Your task to perform on an android device: turn off notifications in google photos Image 0: 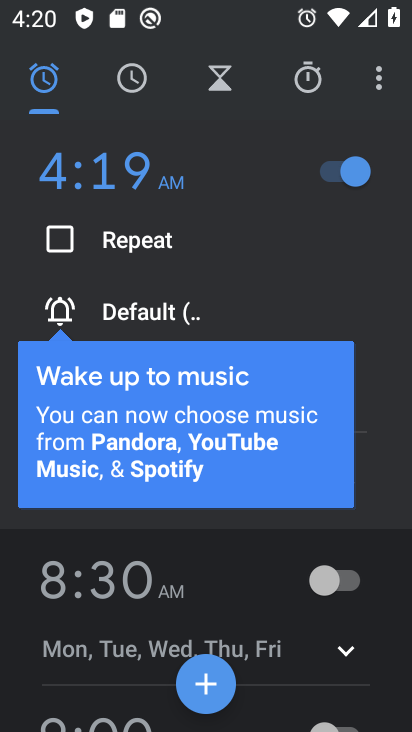
Step 0: press home button
Your task to perform on an android device: turn off notifications in google photos Image 1: 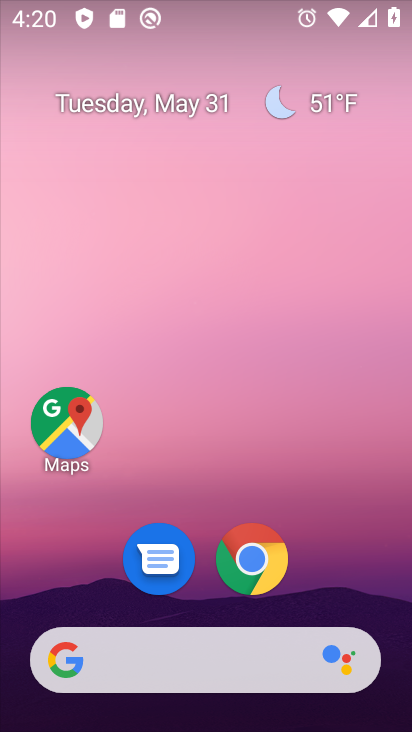
Step 1: drag from (332, 580) to (189, 0)
Your task to perform on an android device: turn off notifications in google photos Image 2: 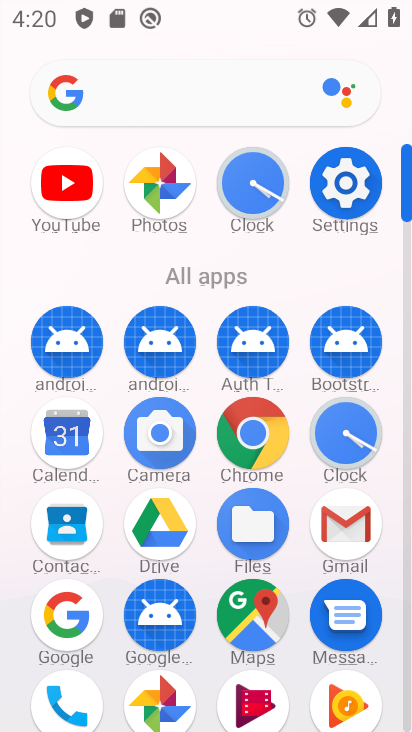
Step 2: click (148, 705)
Your task to perform on an android device: turn off notifications in google photos Image 3: 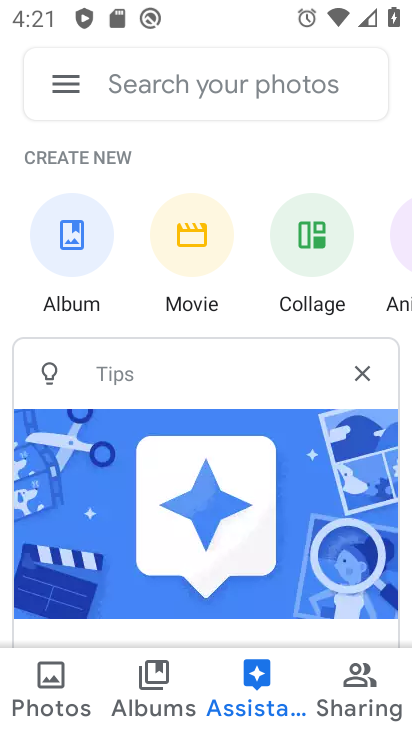
Step 3: click (63, 80)
Your task to perform on an android device: turn off notifications in google photos Image 4: 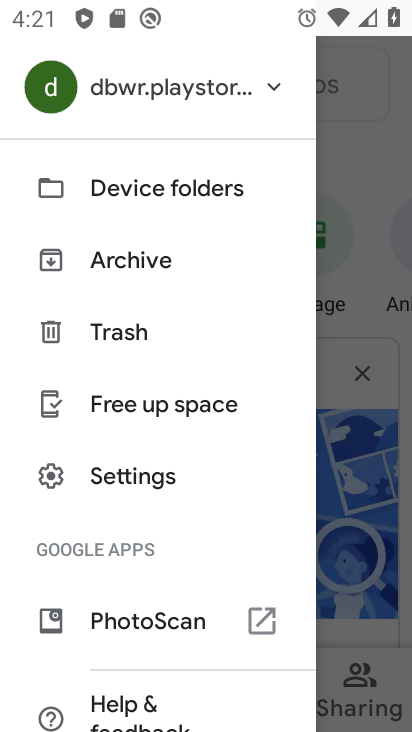
Step 4: click (122, 480)
Your task to perform on an android device: turn off notifications in google photos Image 5: 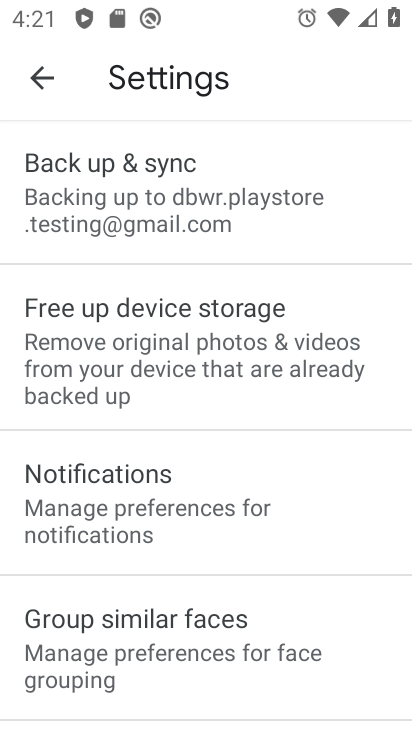
Step 5: click (108, 532)
Your task to perform on an android device: turn off notifications in google photos Image 6: 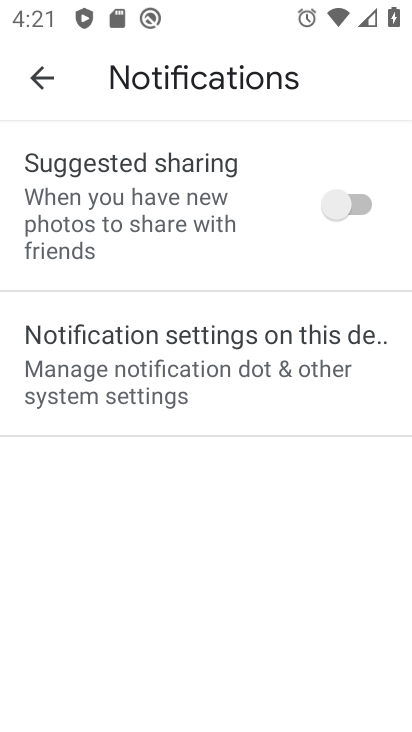
Step 6: click (148, 403)
Your task to perform on an android device: turn off notifications in google photos Image 7: 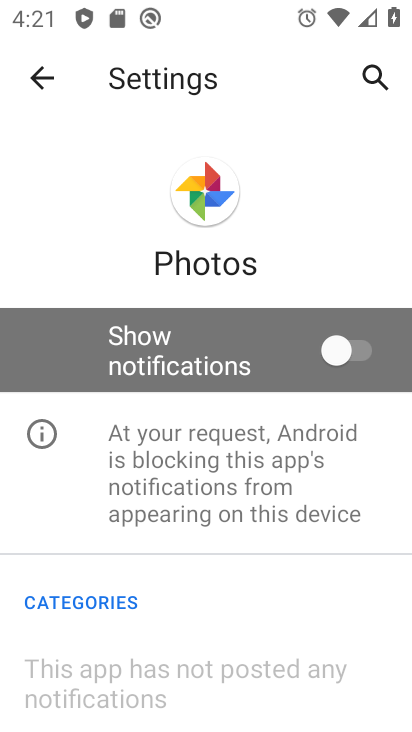
Step 7: task complete